Your task to perform on an android device: Open network settings Image 0: 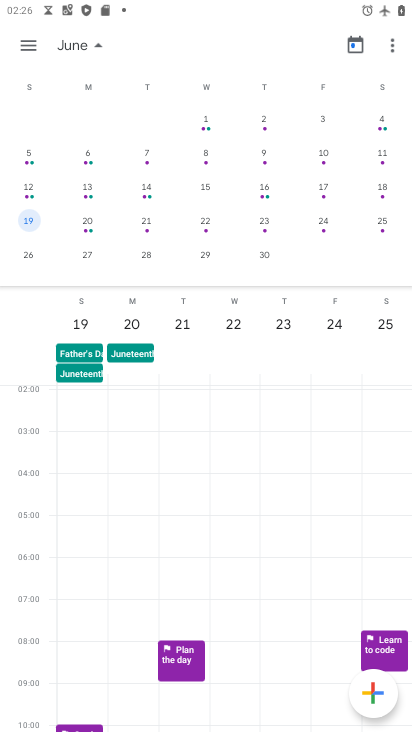
Step 0: press home button
Your task to perform on an android device: Open network settings Image 1: 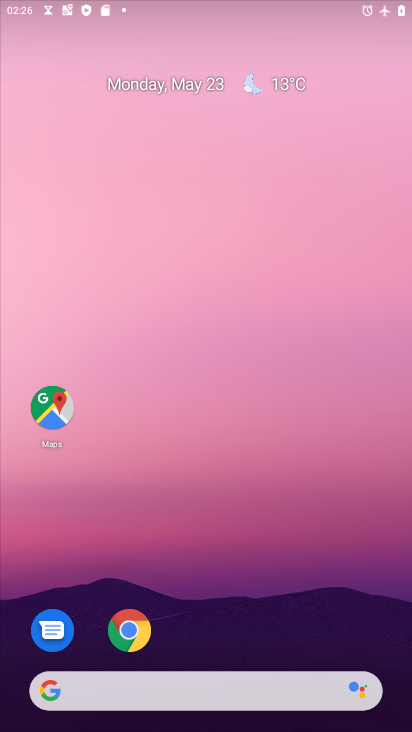
Step 1: drag from (316, 563) to (169, 1)
Your task to perform on an android device: Open network settings Image 2: 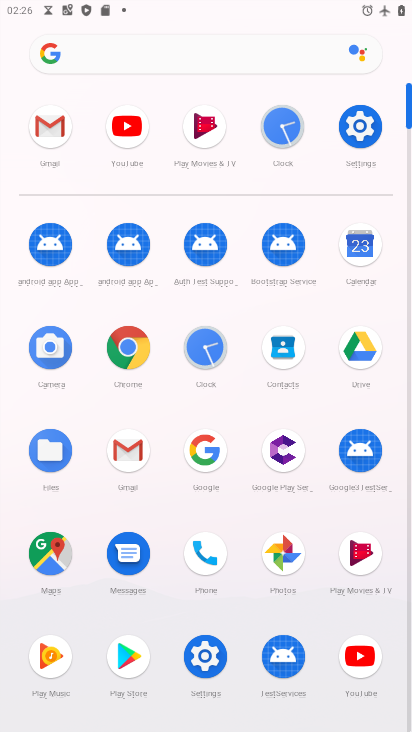
Step 2: click (349, 138)
Your task to perform on an android device: Open network settings Image 3: 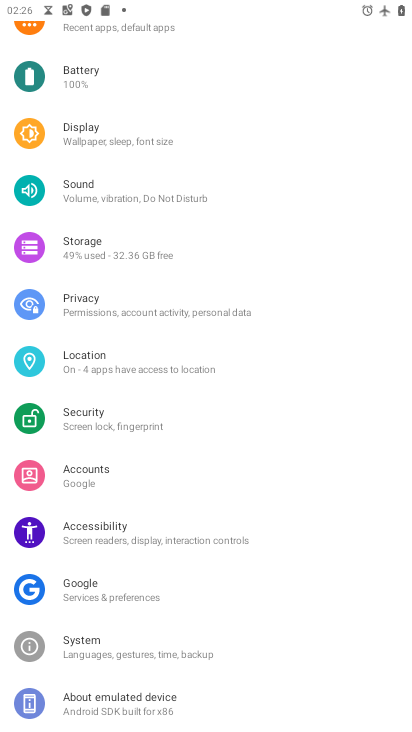
Step 3: drag from (216, 118) to (219, 642)
Your task to perform on an android device: Open network settings Image 4: 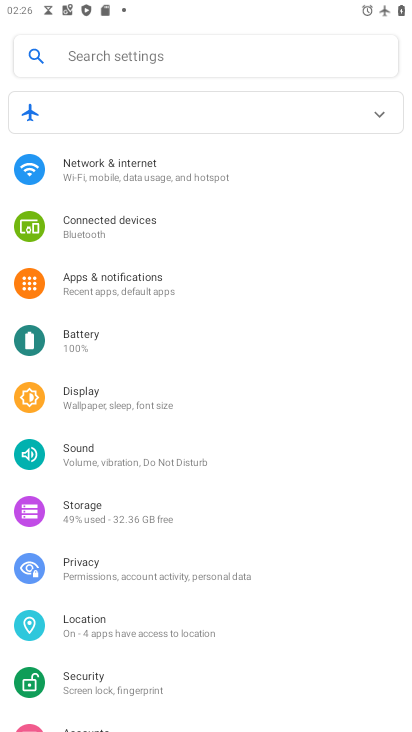
Step 4: click (207, 176)
Your task to perform on an android device: Open network settings Image 5: 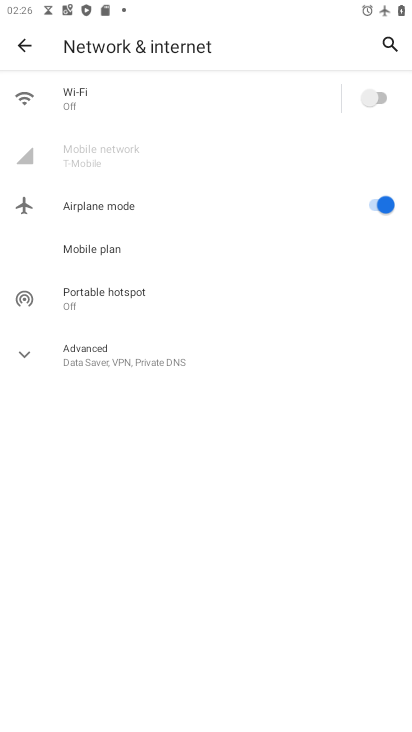
Step 5: task complete